Your task to perform on an android device: search for starred emails in the gmail app Image 0: 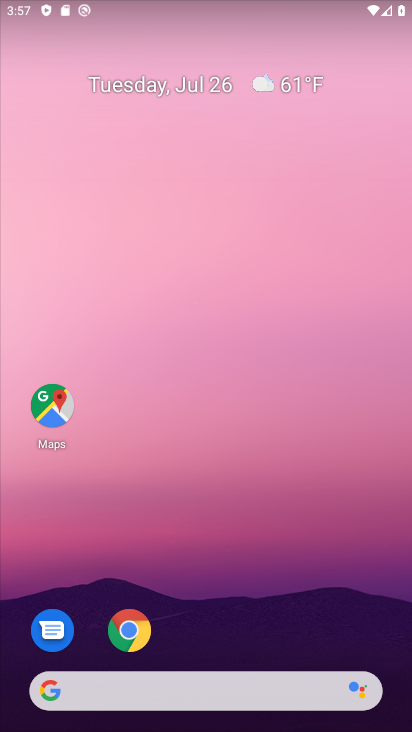
Step 0: click (221, 52)
Your task to perform on an android device: search for starred emails in the gmail app Image 1: 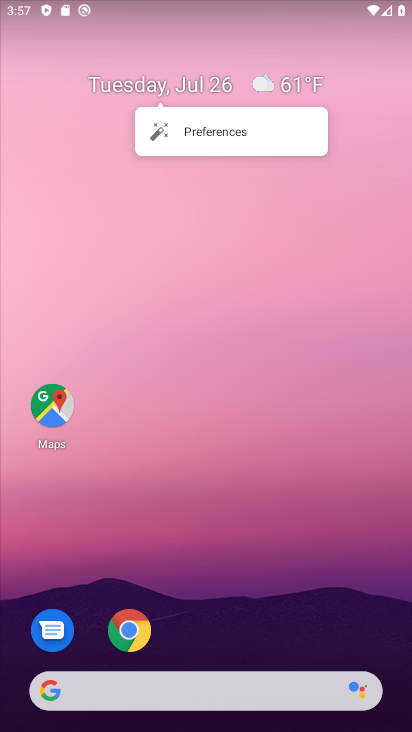
Step 1: drag from (318, 558) to (241, 236)
Your task to perform on an android device: search for starred emails in the gmail app Image 2: 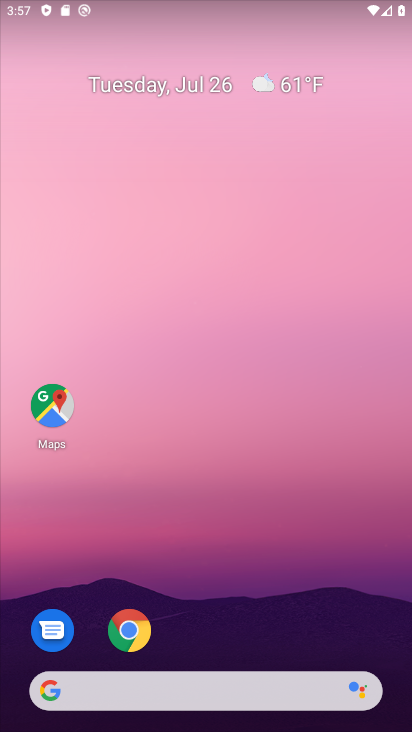
Step 2: drag from (254, 517) to (187, 153)
Your task to perform on an android device: search for starred emails in the gmail app Image 3: 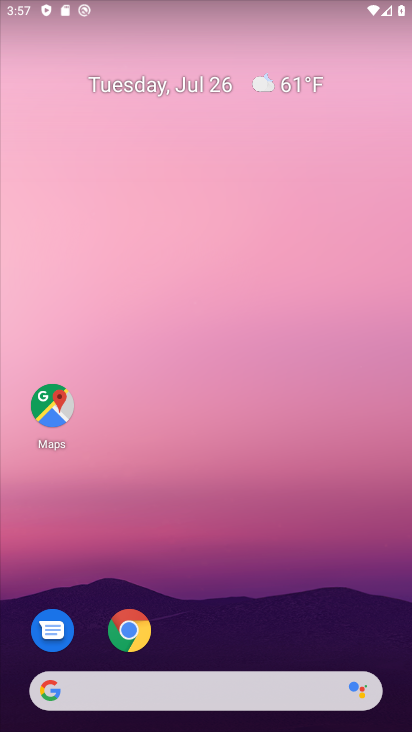
Step 3: drag from (223, 638) to (145, 250)
Your task to perform on an android device: search for starred emails in the gmail app Image 4: 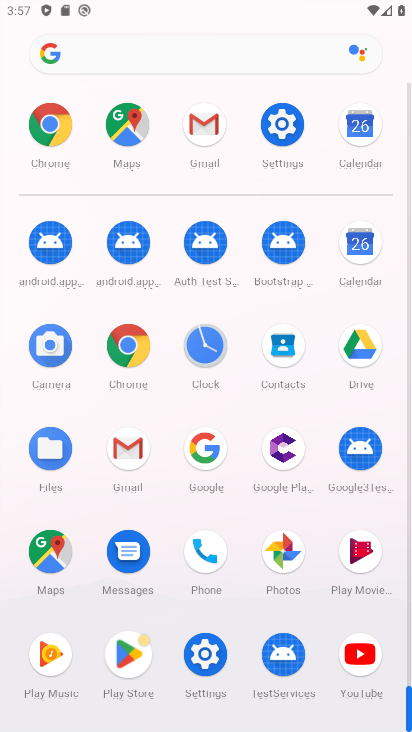
Step 4: drag from (201, 605) to (131, 63)
Your task to perform on an android device: search for starred emails in the gmail app Image 5: 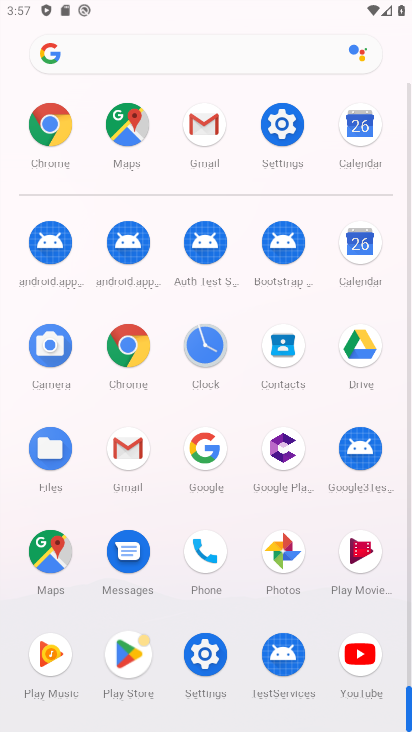
Step 5: click (132, 441)
Your task to perform on an android device: search for starred emails in the gmail app Image 6: 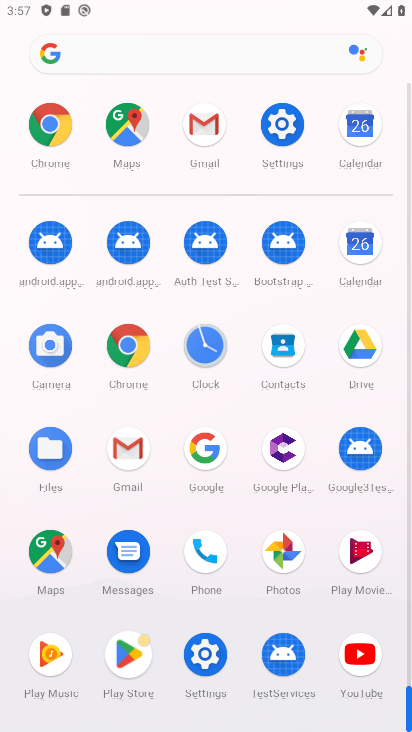
Step 6: click (132, 441)
Your task to perform on an android device: search for starred emails in the gmail app Image 7: 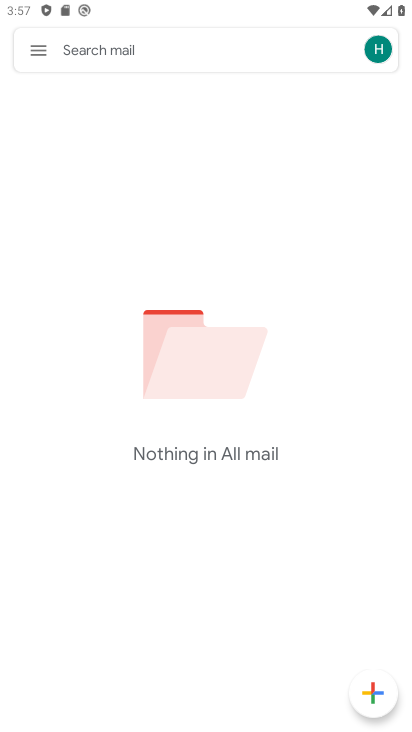
Step 7: click (38, 44)
Your task to perform on an android device: search for starred emails in the gmail app Image 8: 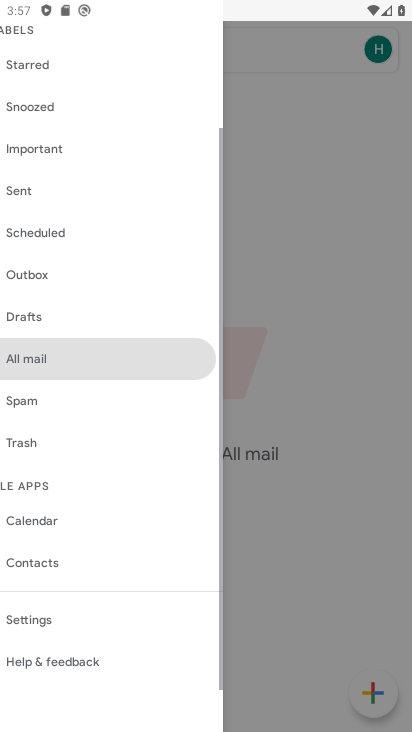
Step 8: click (38, 43)
Your task to perform on an android device: search for starred emails in the gmail app Image 9: 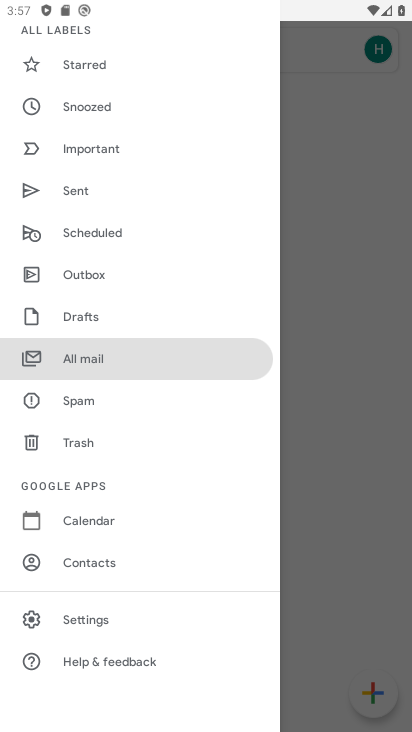
Step 9: click (71, 64)
Your task to perform on an android device: search for starred emails in the gmail app Image 10: 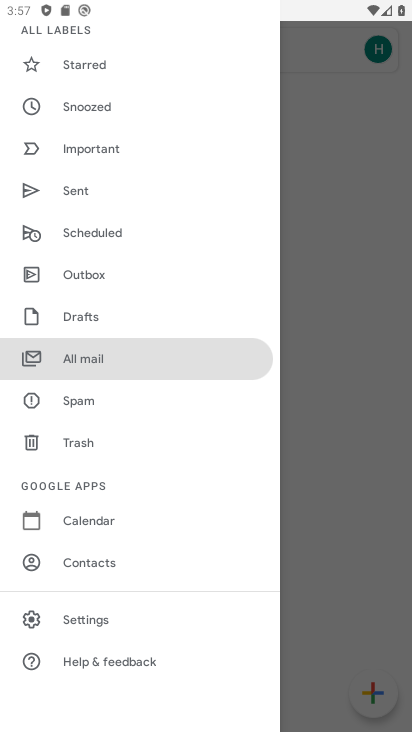
Step 10: click (75, 64)
Your task to perform on an android device: search for starred emails in the gmail app Image 11: 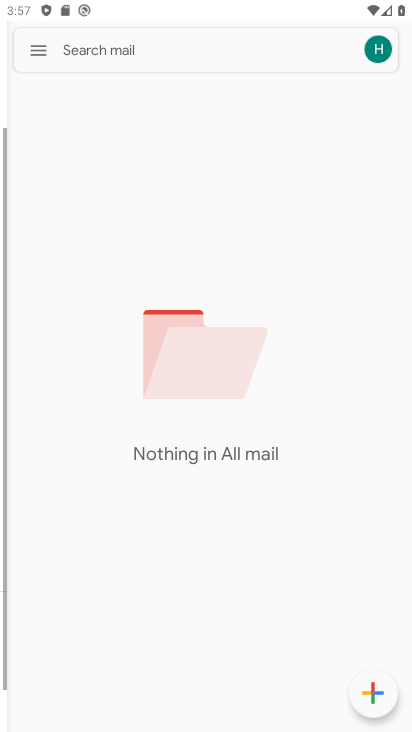
Step 11: click (75, 64)
Your task to perform on an android device: search for starred emails in the gmail app Image 12: 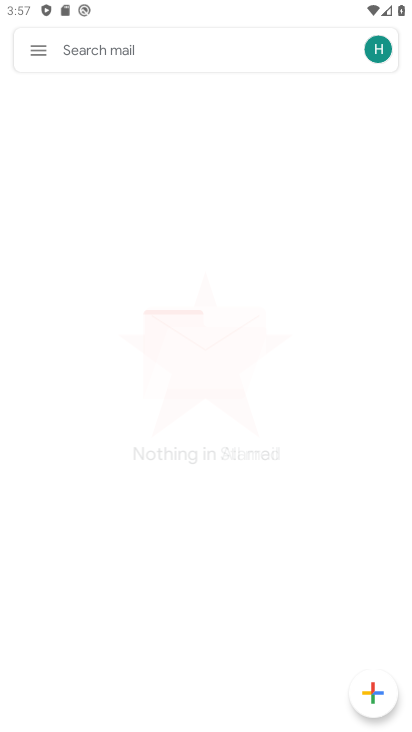
Step 12: click (77, 64)
Your task to perform on an android device: search for starred emails in the gmail app Image 13: 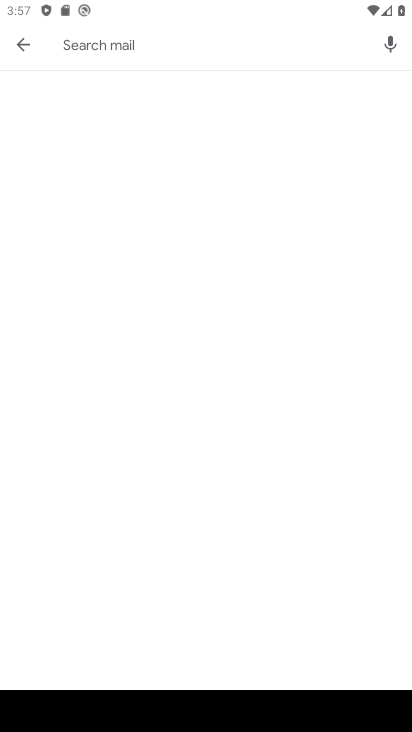
Step 13: click (20, 38)
Your task to perform on an android device: search for starred emails in the gmail app Image 14: 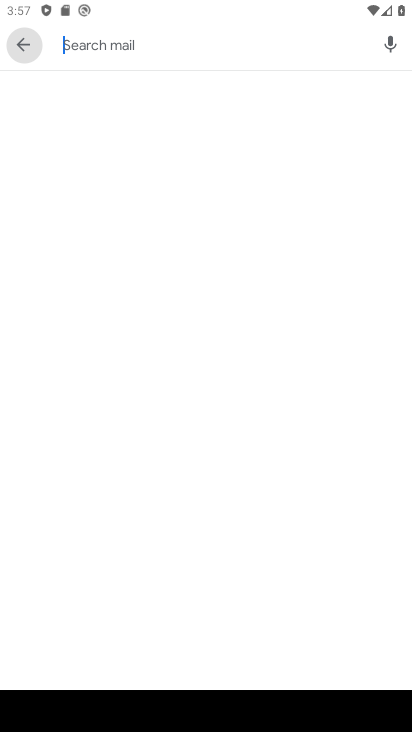
Step 14: click (21, 40)
Your task to perform on an android device: search for starred emails in the gmail app Image 15: 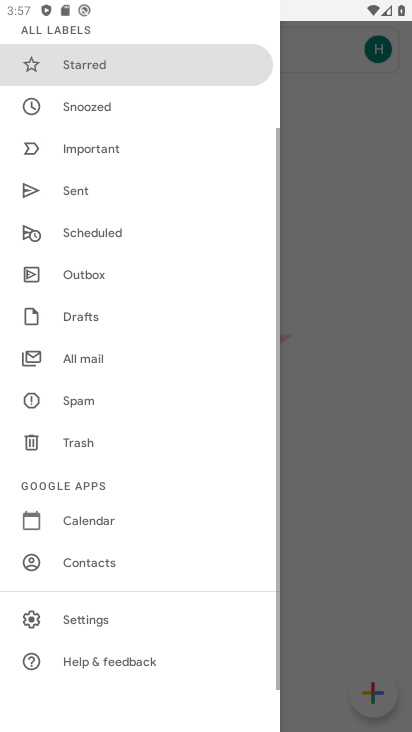
Step 15: click (92, 59)
Your task to perform on an android device: search for starred emails in the gmail app Image 16: 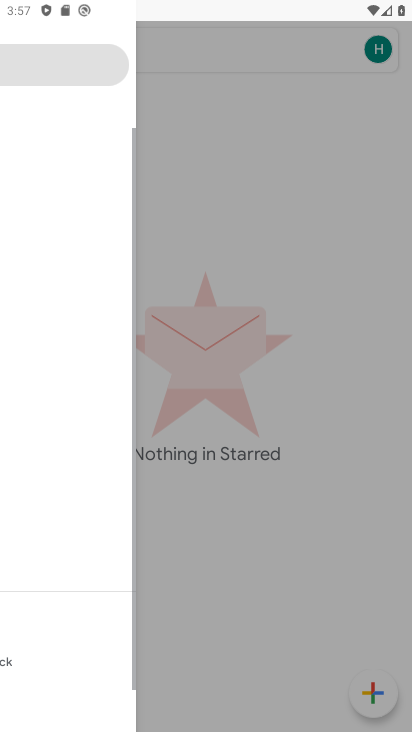
Step 16: click (99, 60)
Your task to perform on an android device: search for starred emails in the gmail app Image 17: 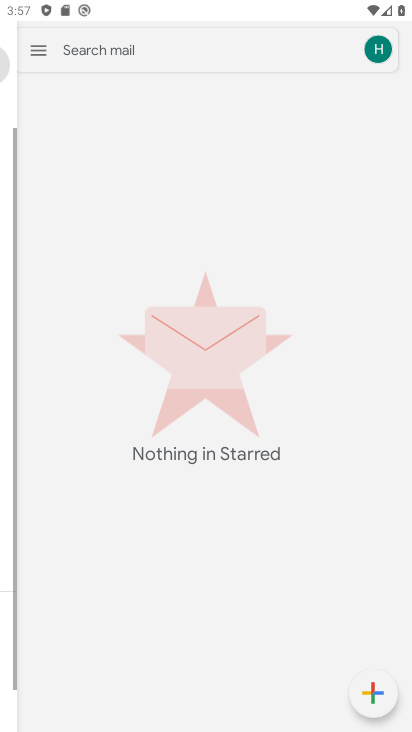
Step 17: click (100, 60)
Your task to perform on an android device: search for starred emails in the gmail app Image 18: 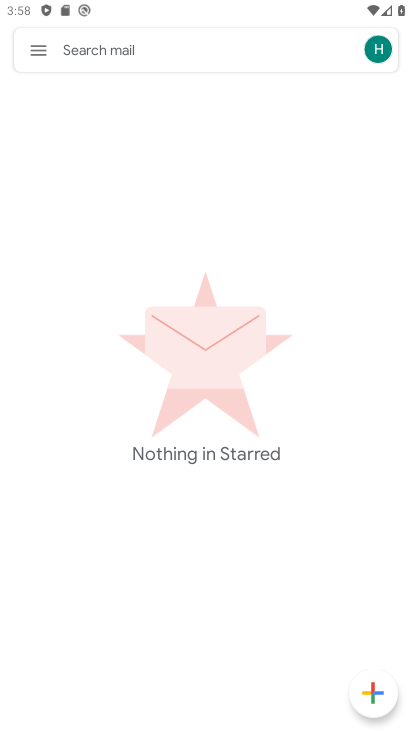
Step 18: task complete